Your task to perform on an android device: make emails show in primary in the gmail app Image 0: 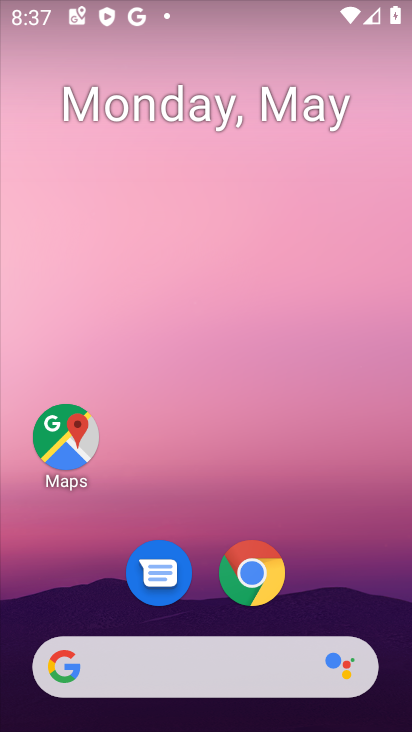
Step 0: drag from (205, 678) to (344, 12)
Your task to perform on an android device: make emails show in primary in the gmail app Image 1: 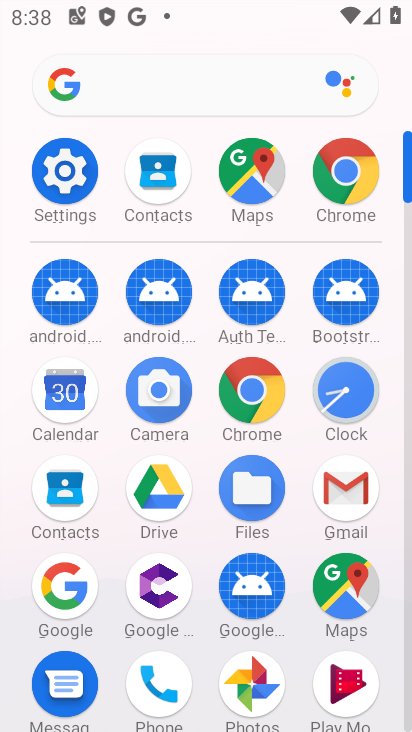
Step 1: click (346, 506)
Your task to perform on an android device: make emails show in primary in the gmail app Image 2: 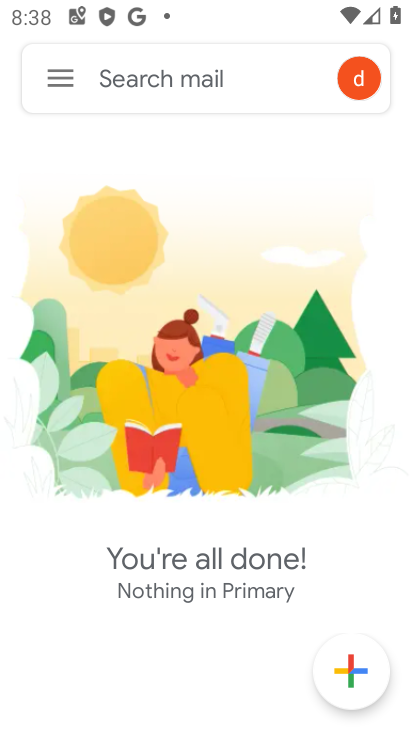
Step 2: click (58, 91)
Your task to perform on an android device: make emails show in primary in the gmail app Image 3: 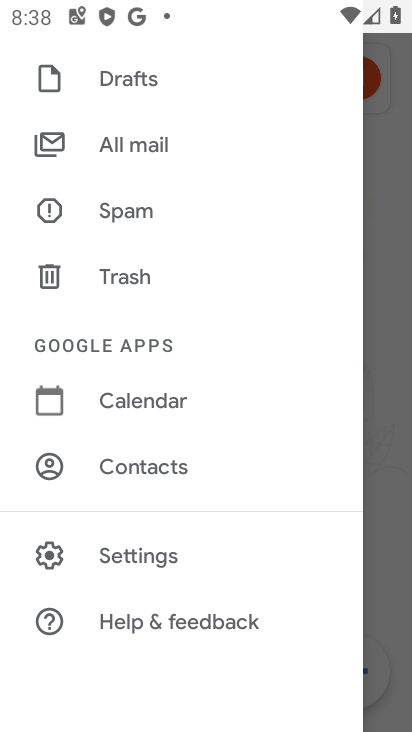
Step 3: click (115, 542)
Your task to perform on an android device: make emails show in primary in the gmail app Image 4: 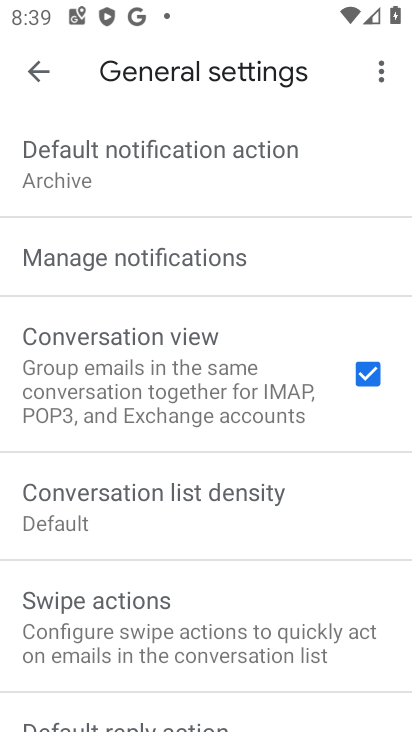
Step 4: task complete